Your task to perform on an android device: Open my contact list Image 0: 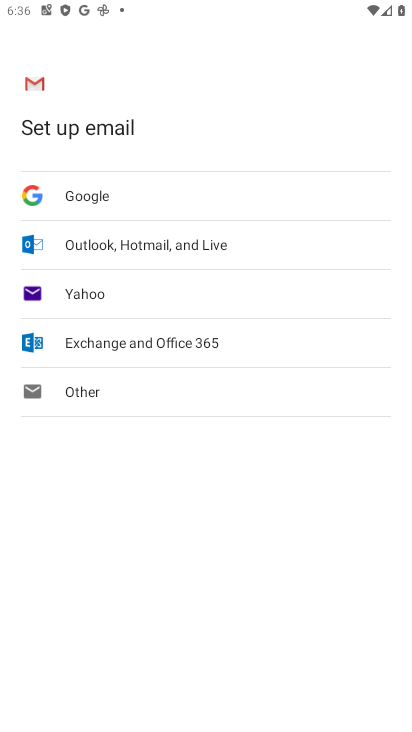
Step 0: press home button
Your task to perform on an android device: Open my contact list Image 1: 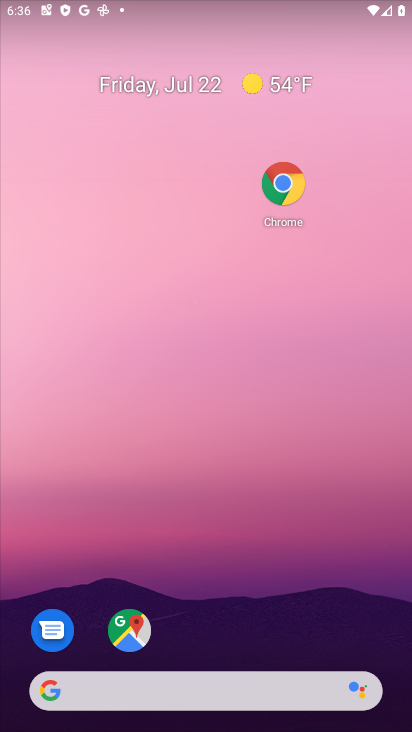
Step 1: drag from (171, 618) to (182, 256)
Your task to perform on an android device: Open my contact list Image 2: 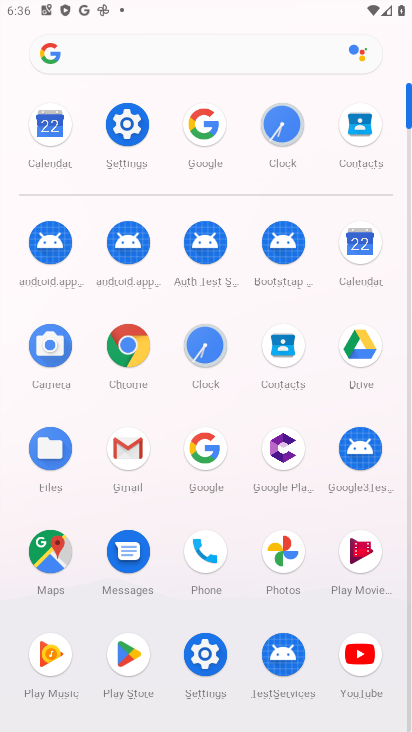
Step 2: click (273, 361)
Your task to perform on an android device: Open my contact list Image 3: 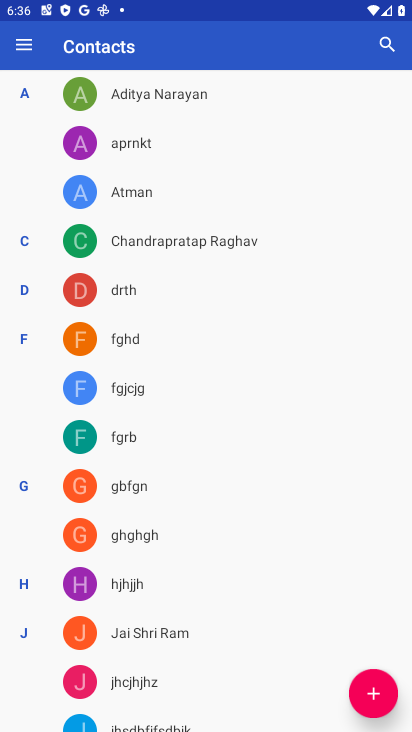
Step 3: task complete